Your task to perform on an android device: Open ESPN.com Image 0: 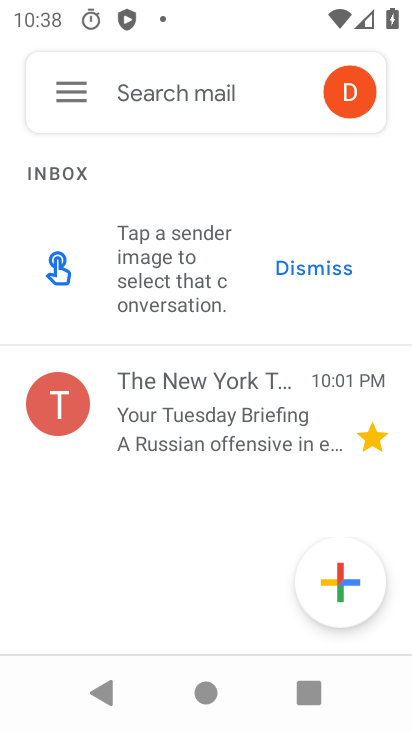
Step 0: press home button
Your task to perform on an android device: Open ESPN.com Image 1: 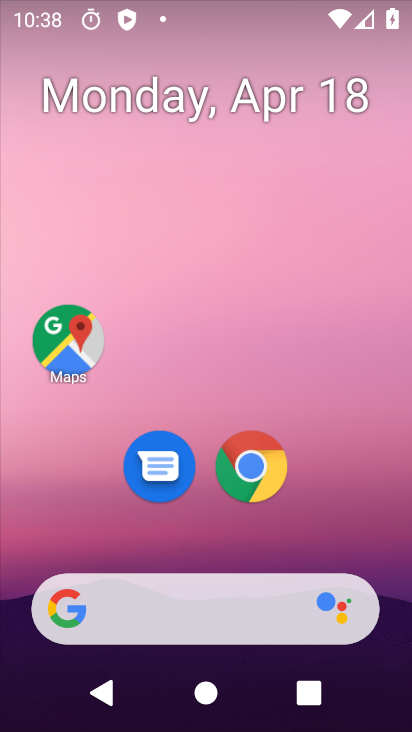
Step 1: drag from (242, 609) to (341, 208)
Your task to perform on an android device: Open ESPN.com Image 2: 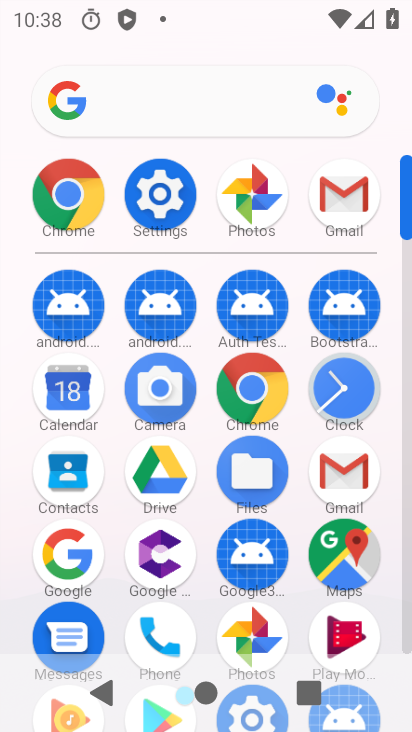
Step 2: click (256, 399)
Your task to perform on an android device: Open ESPN.com Image 3: 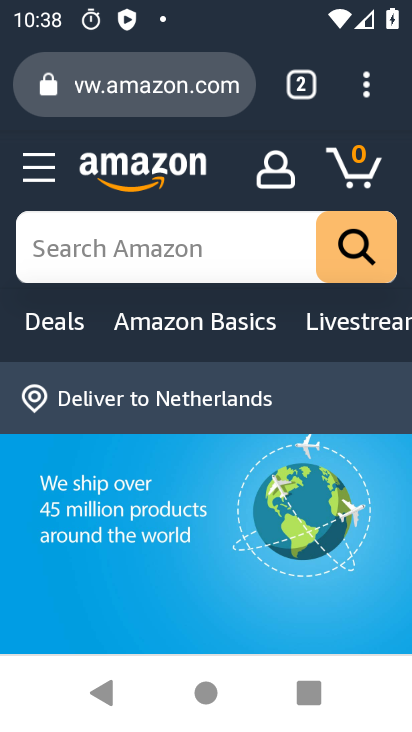
Step 3: drag from (244, 90) to (243, 263)
Your task to perform on an android device: Open ESPN.com Image 4: 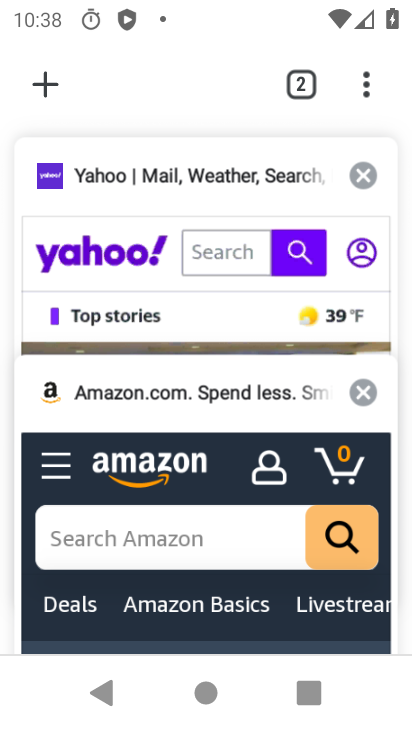
Step 4: click (25, 94)
Your task to perform on an android device: Open ESPN.com Image 5: 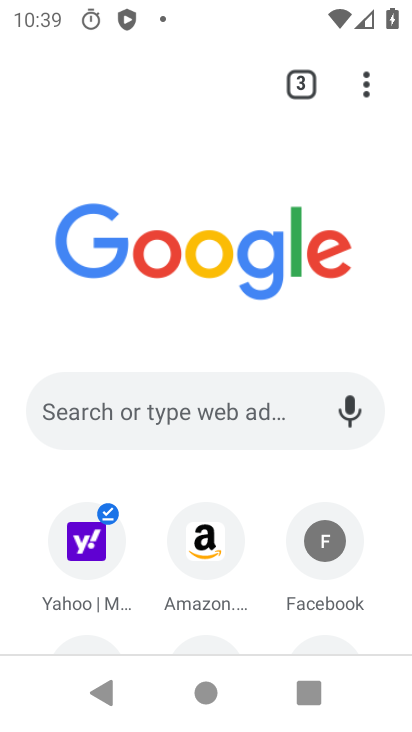
Step 5: drag from (263, 475) to (309, 103)
Your task to perform on an android device: Open ESPN.com Image 6: 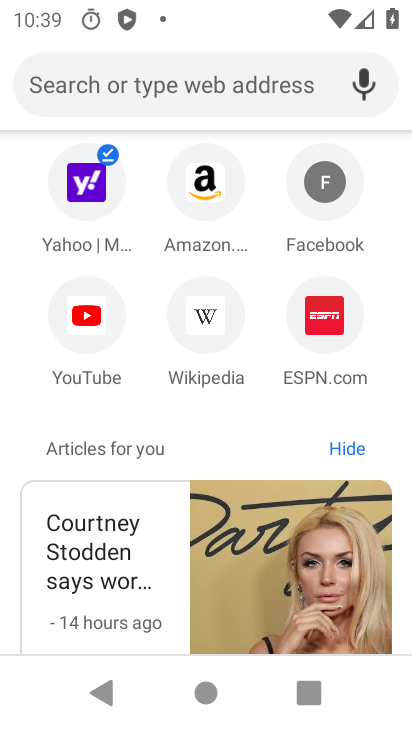
Step 6: click (345, 320)
Your task to perform on an android device: Open ESPN.com Image 7: 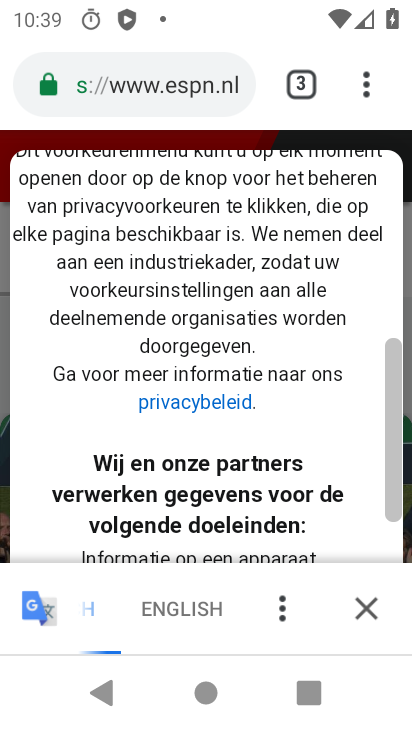
Step 7: click (372, 610)
Your task to perform on an android device: Open ESPN.com Image 8: 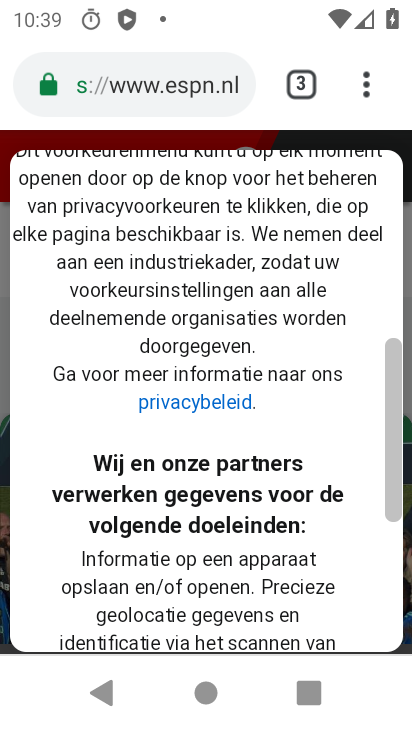
Step 8: task complete